Your task to perform on an android device: toggle data saver in the chrome app Image 0: 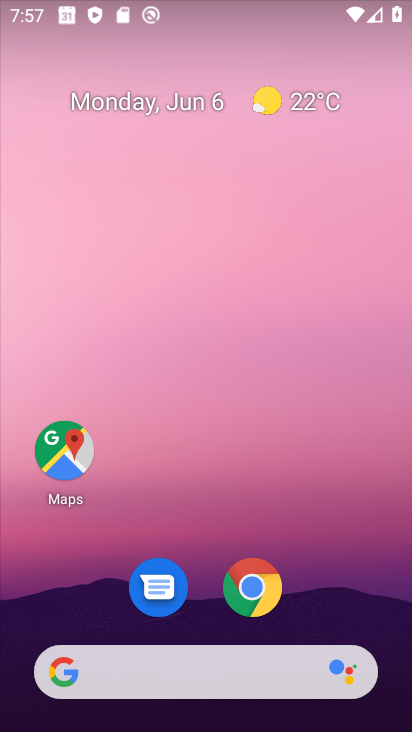
Step 0: click (253, 577)
Your task to perform on an android device: toggle data saver in the chrome app Image 1: 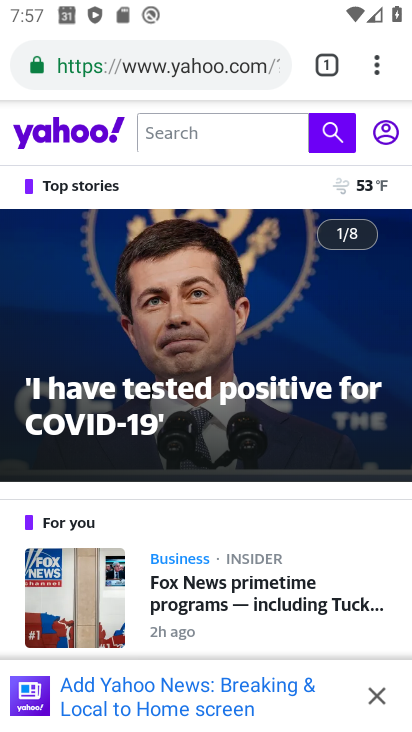
Step 1: click (374, 61)
Your task to perform on an android device: toggle data saver in the chrome app Image 2: 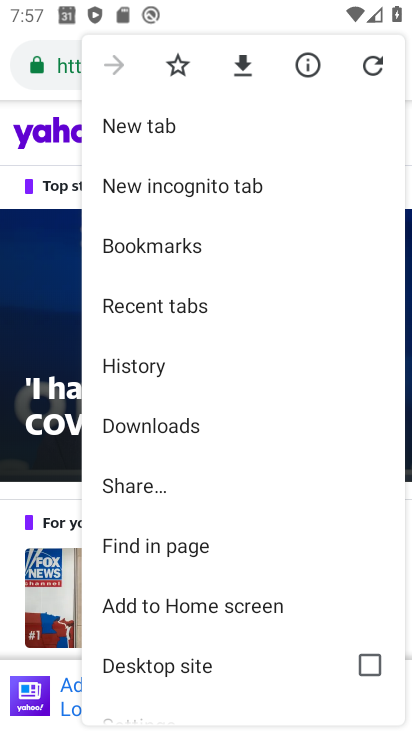
Step 2: drag from (174, 665) to (165, 290)
Your task to perform on an android device: toggle data saver in the chrome app Image 3: 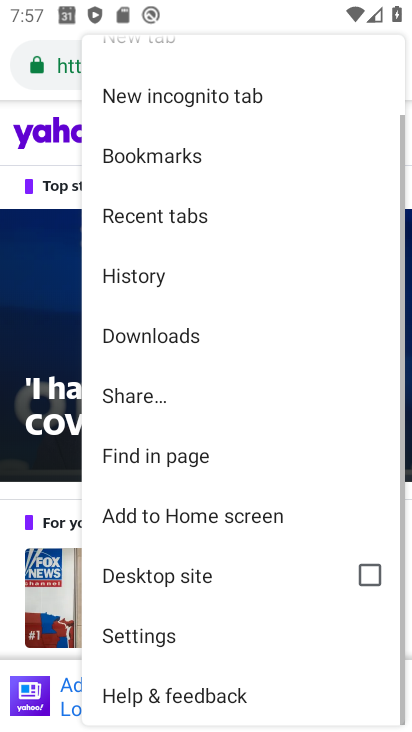
Step 3: click (130, 632)
Your task to perform on an android device: toggle data saver in the chrome app Image 4: 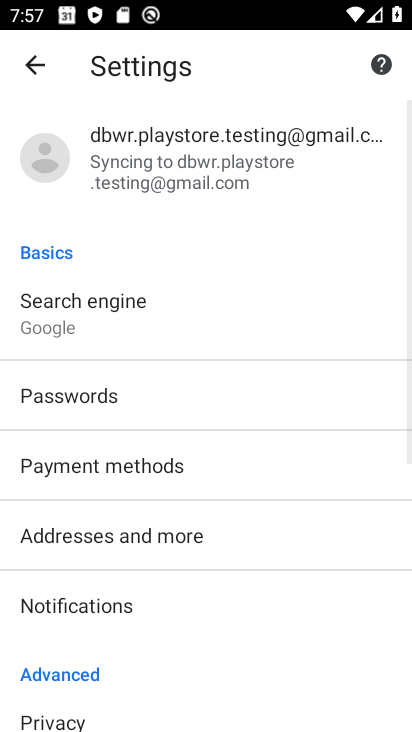
Step 4: drag from (91, 683) to (91, 340)
Your task to perform on an android device: toggle data saver in the chrome app Image 5: 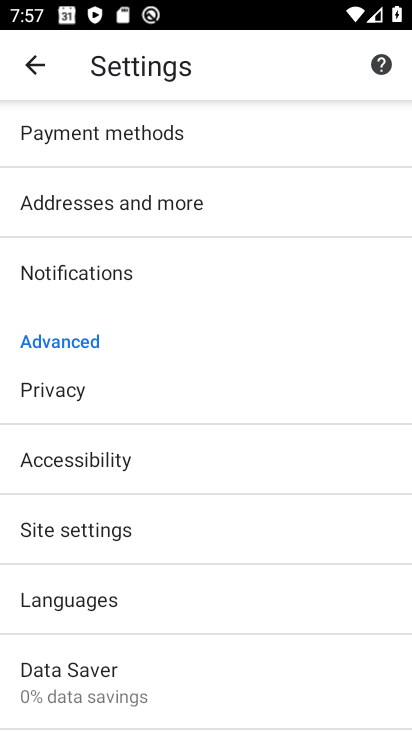
Step 5: click (81, 677)
Your task to perform on an android device: toggle data saver in the chrome app Image 6: 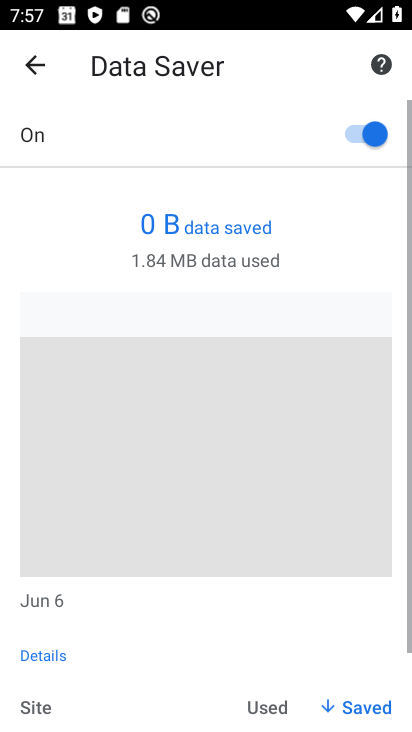
Step 6: click (355, 128)
Your task to perform on an android device: toggle data saver in the chrome app Image 7: 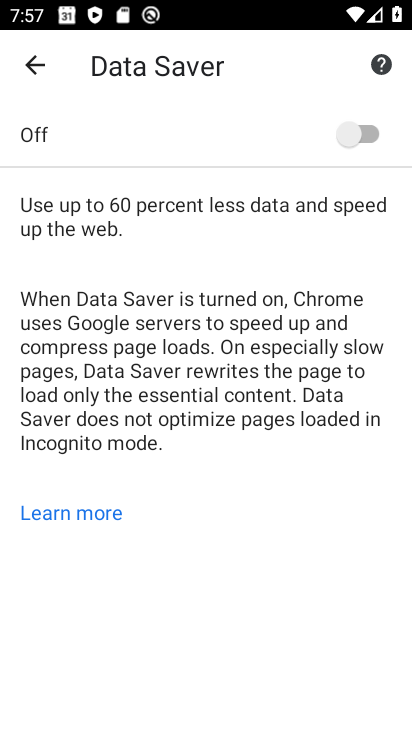
Step 7: task complete